Your task to perform on an android device: What's the weather? Image 0: 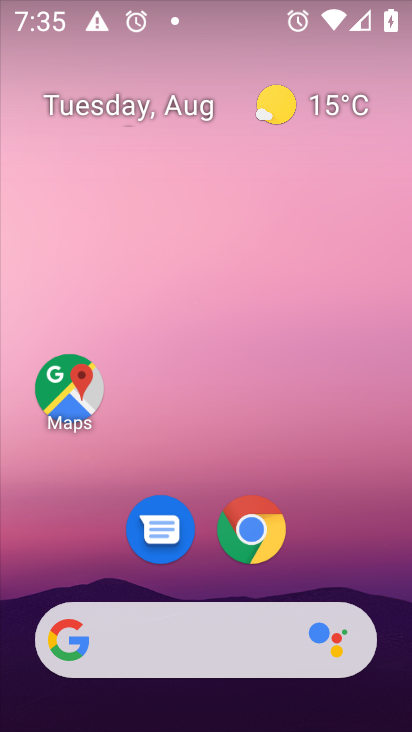
Step 0: press home button
Your task to perform on an android device: What's the weather? Image 1: 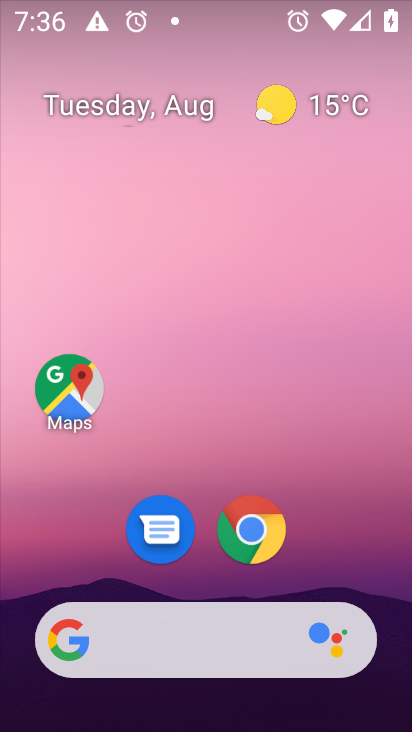
Step 1: click (75, 652)
Your task to perform on an android device: What's the weather? Image 2: 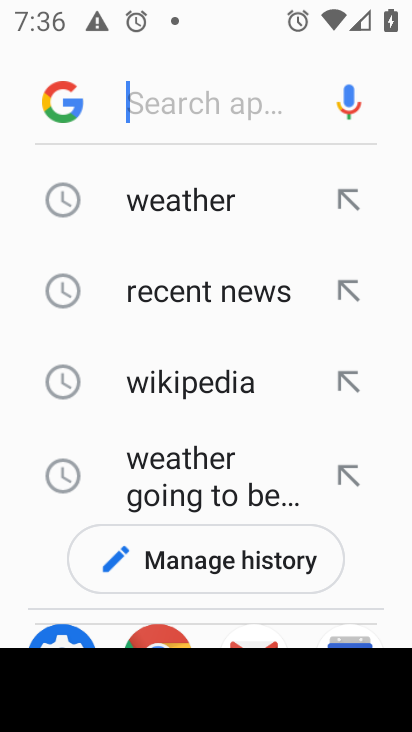
Step 2: click (175, 198)
Your task to perform on an android device: What's the weather? Image 3: 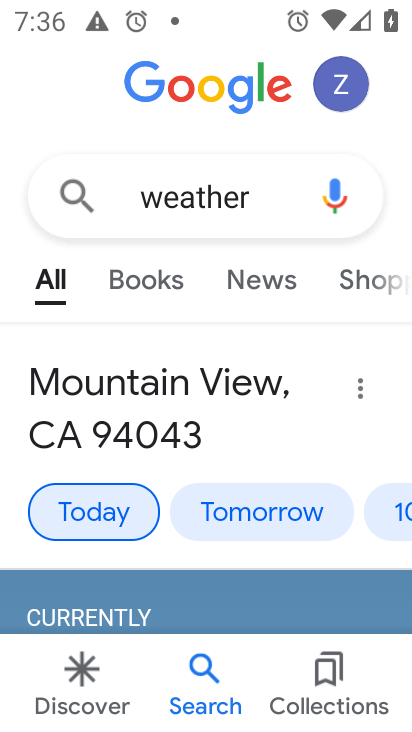
Step 3: task complete